Your task to perform on an android device: Clear the shopping cart on ebay. Image 0: 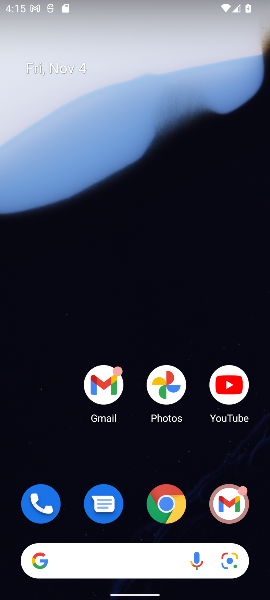
Step 0: click (163, 513)
Your task to perform on an android device: Clear the shopping cart on ebay. Image 1: 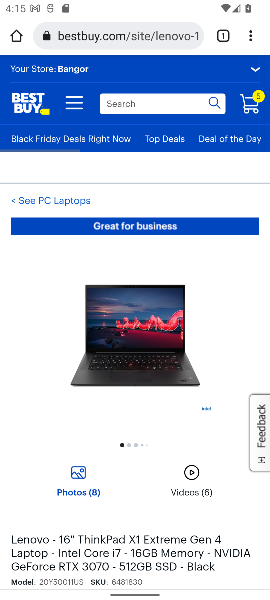
Step 1: click (114, 30)
Your task to perform on an android device: Clear the shopping cart on ebay. Image 2: 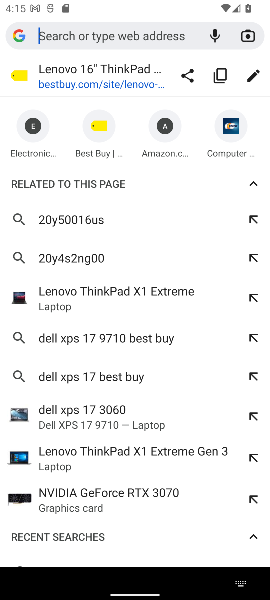
Step 2: type "ebay.com"
Your task to perform on an android device: Clear the shopping cart on ebay. Image 3: 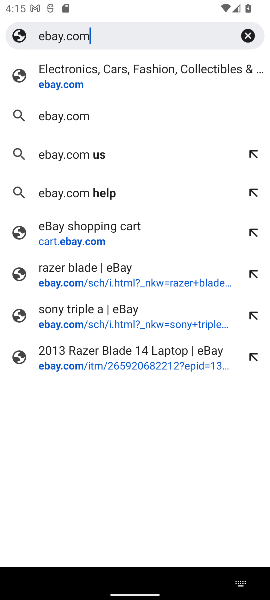
Step 3: click (58, 89)
Your task to perform on an android device: Clear the shopping cart on ebay. Image 4: 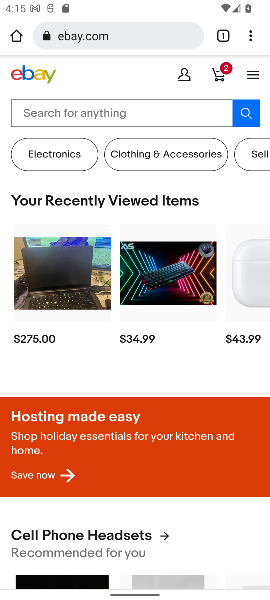
Step 4: click (227, 74)
Your task to perform on an android device: Clear the shopping cart on ebay. Image 5: 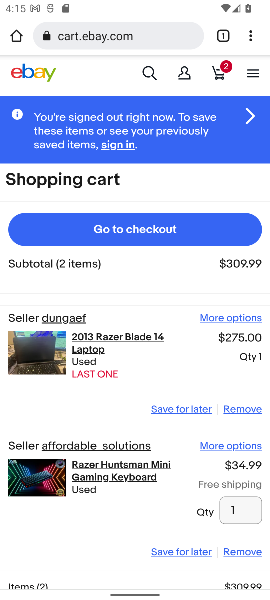
Step 5: click (251, 415)
Your task to perform on an android device: Clear the shopping cart on ebay. Image 6: 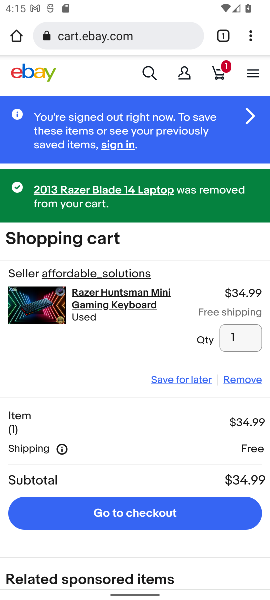
Step 6: click (233, 387)
Your task to perform on an android device: Clear the shopping cart on ebay. Image 7: 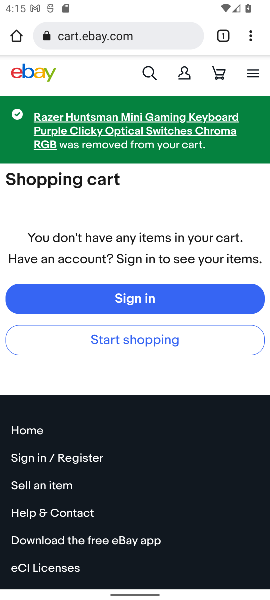
Step 7: task complete